Your task to perform on an android device: Open display settings Image 0: 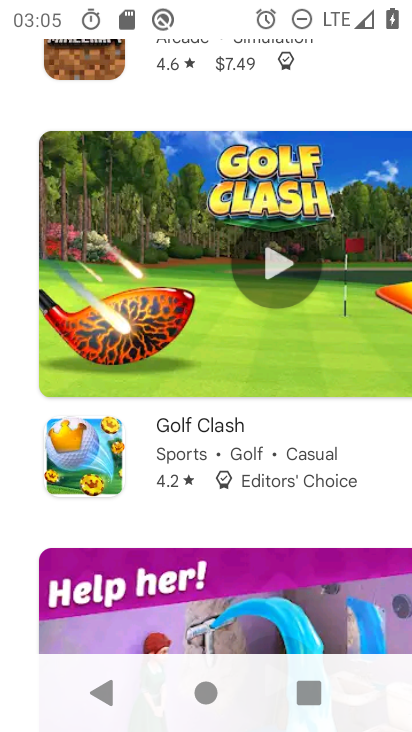
Step 0: press home button
Your task to perform on an android device: Open display settings Image 1: 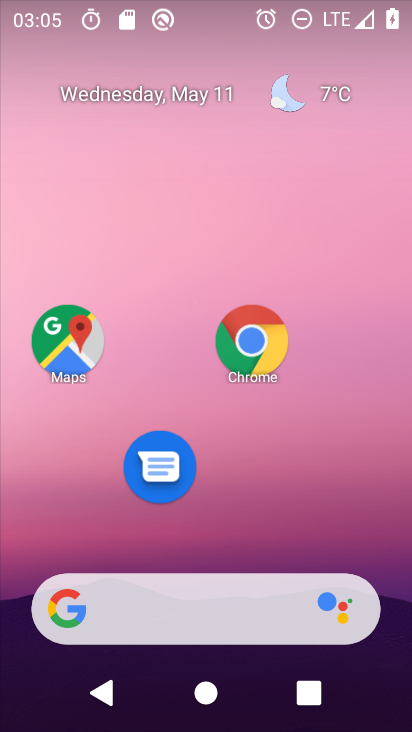
Step 1: drag from (197, 604) to (262, 107)
Your task to perform on an android device: Open display settings Image 2: 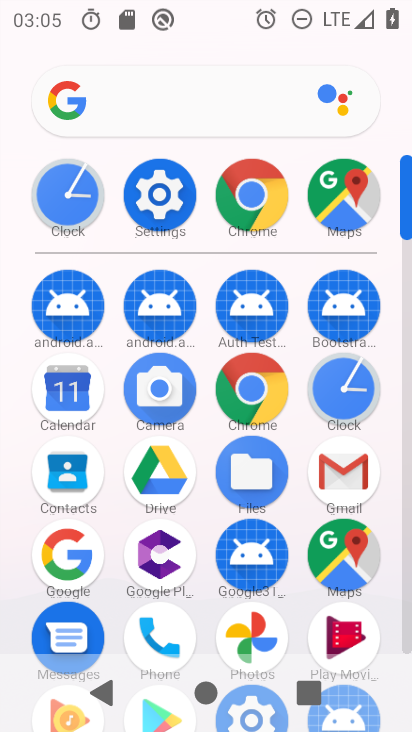
Step 2: click (171, 203)
Your task to perform on an android device: Open display settings Image 3: 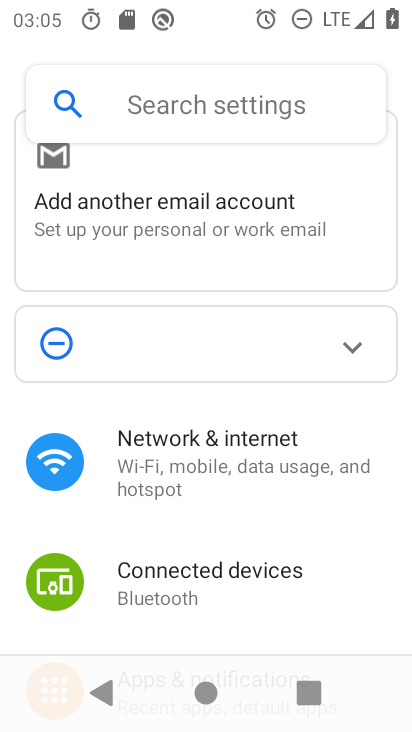
Step 3: drag from (190, 589) to (340, 153)
Your task to perform on an android device: Open display settings Image 4: 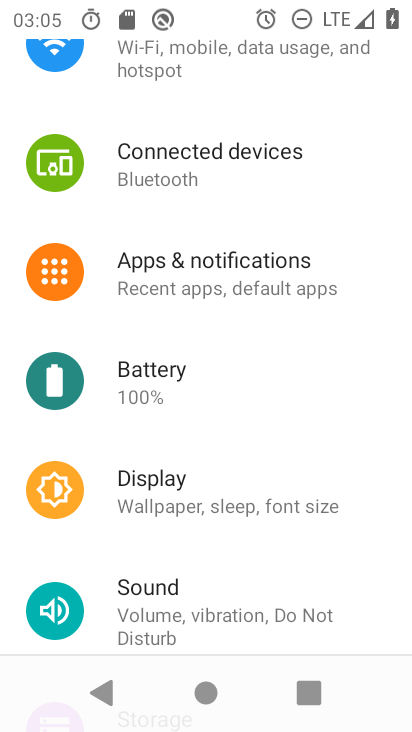
Step 4: click (170, 494)
Your task to perform on an android device: Open display settings Image 5: 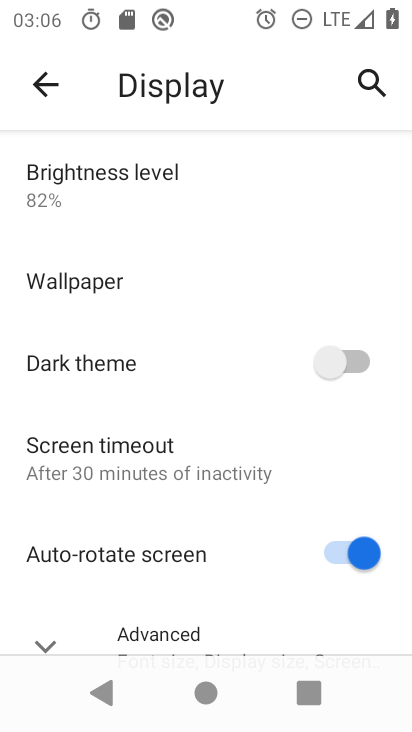
Step 5: task complete